Your task to perform on an android device: show emergency info Image 0: 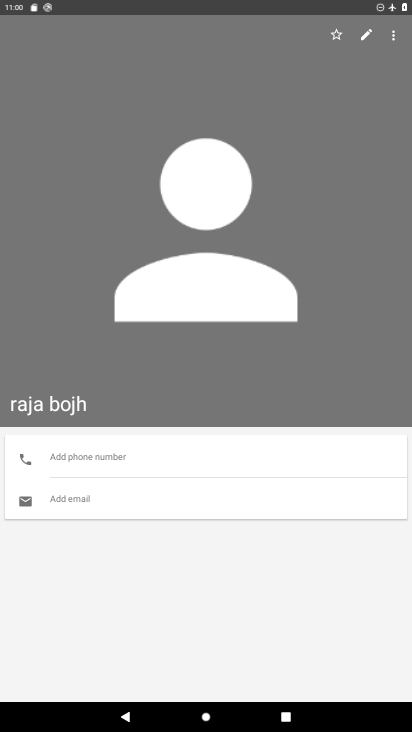
Step 0: press home button
Your task to perform on an android device: show emergency info Image 1: 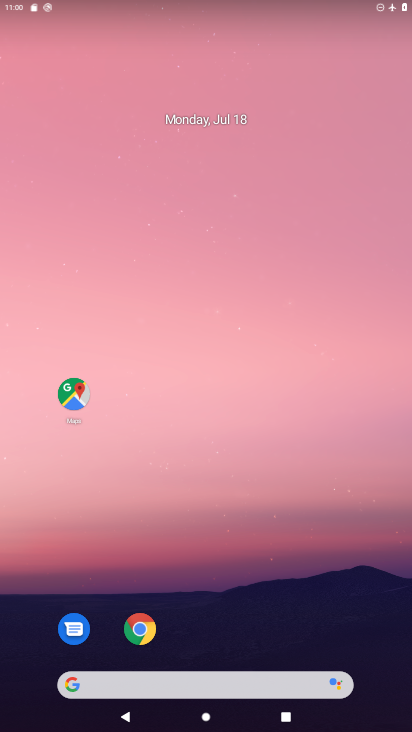
Step 1: drag from (256, 538) to (211, 45)
Your task to perform on an android device: show emergency info Image 2: 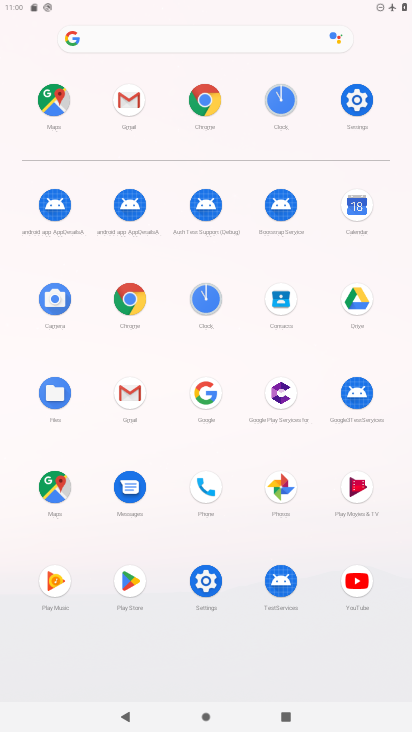
Step 2: click (352, 93)
Your task to perform on an android device: show emergency info Image 3: 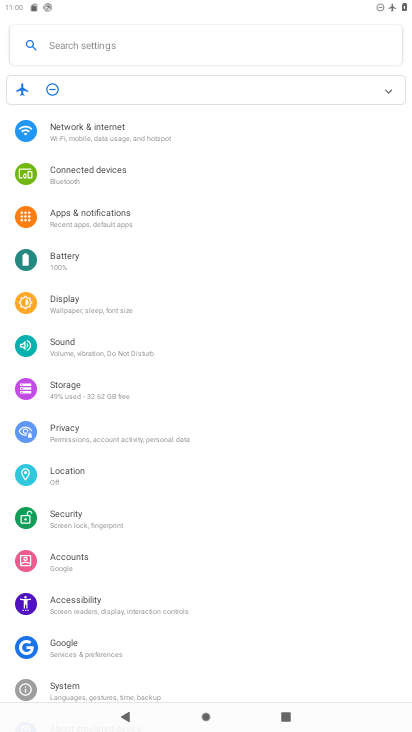
Step 3: drag from (207, 609) to (189, 167)
Your task to perform on an android device: show emergency info Image 4: 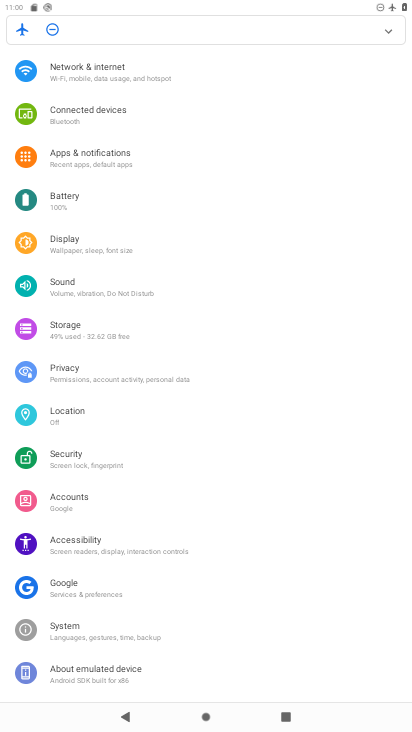
Step 4: click (115, 680)
Your task to perform on an android device: show emergency info Image 5: 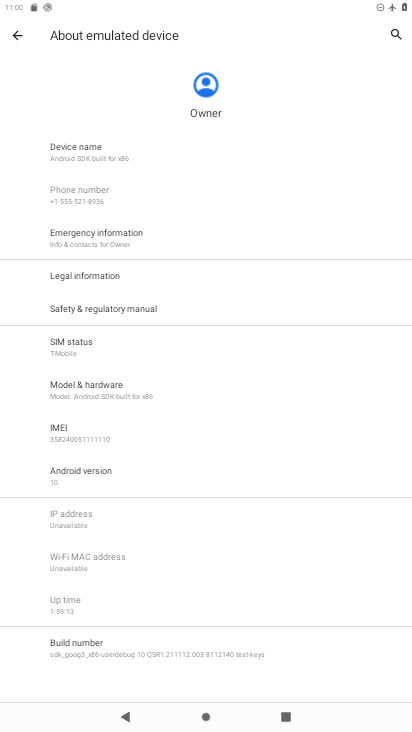
Step 5: click (135, 243)
Your task to perform on an android device: show emergency info Image 6: 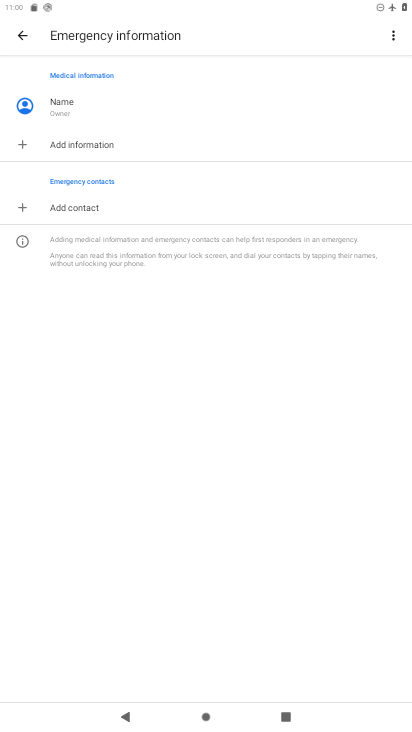
Step 6: task complete